Your task to perform on an android device: stop showing notifications on the lock screen Image 0: 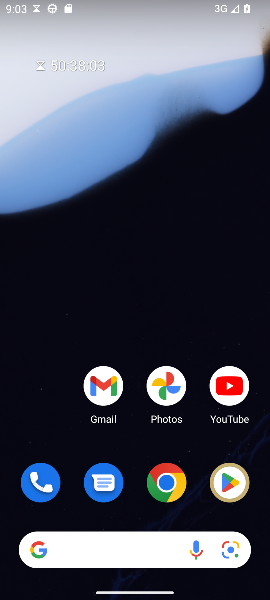
Step 0: drag from (26, 475) to (67, 85)
Your task to perform on an android device: stop showing notifications on the lock screen Image 1: 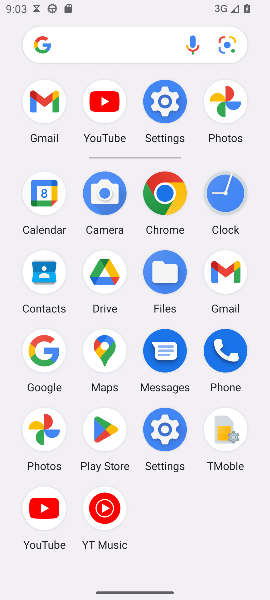
Step 1: click (162, 113)
Your task to perform on an android device: stop showing notifications on the lock screen Image 2: 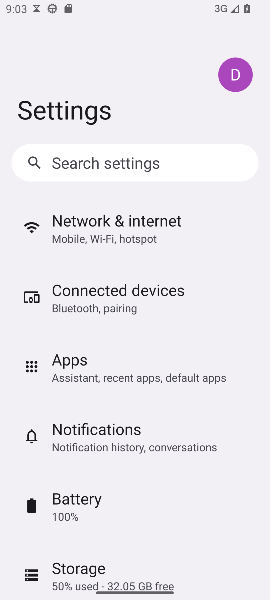
Step 2: click (111, 441)
Your task to perform on an android device: stop showing notifications on the lock screen Image 3: 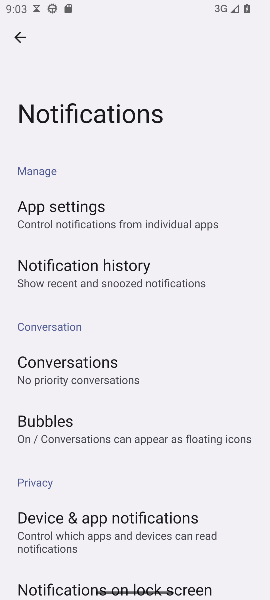
Step 3: drag from (130, 548) to (204, 220)
Your task to perform on an android device: stop showing notifications on the lock screen Image 4: 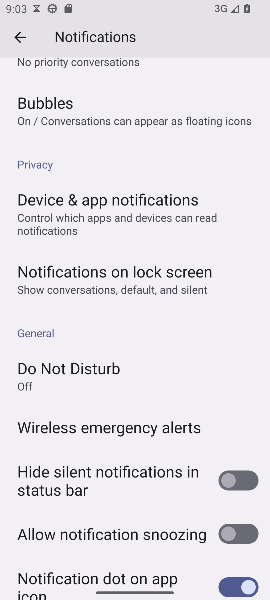
Step 4: click (178, 268)
Your task to perform on an android device: stop showing notifications on the lock screen Image 5: 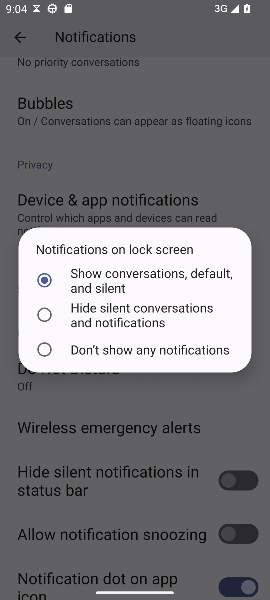
Step 5: click (65, 356)
Your task to perform on an android device: stop showing notifications on the lock screen Image 6: 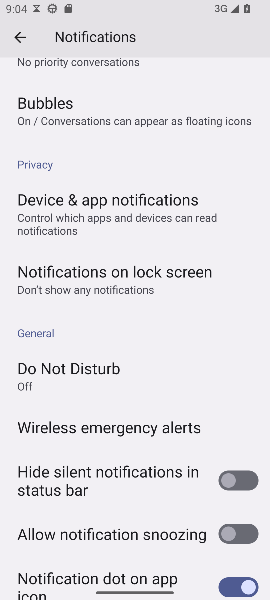
Step 6: task complete